Your task to perform on an android device: Play the last video I watched on Youtube Image 0: 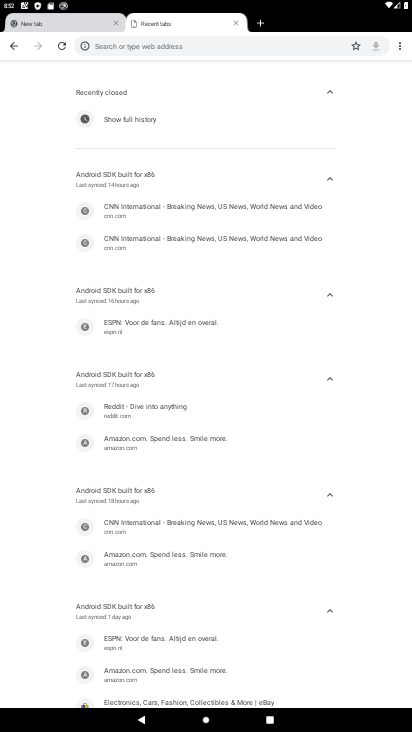
Step 0: task complete